Your task to perform on an android device: turn off sleep mode Image 0: 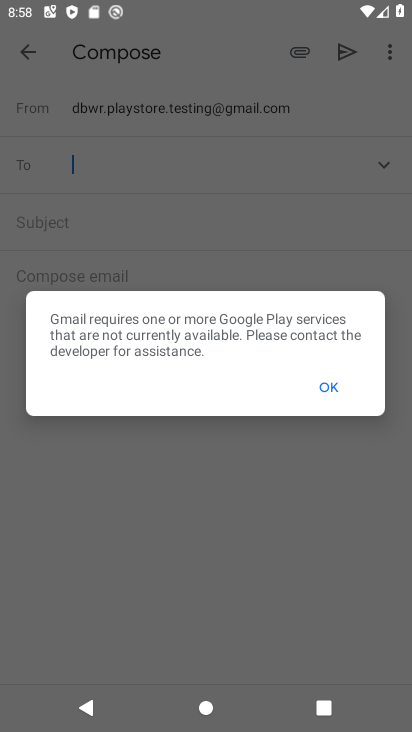
Step 0: press home button
Your task to perform on an android device: turn off sleep mode Image 1: 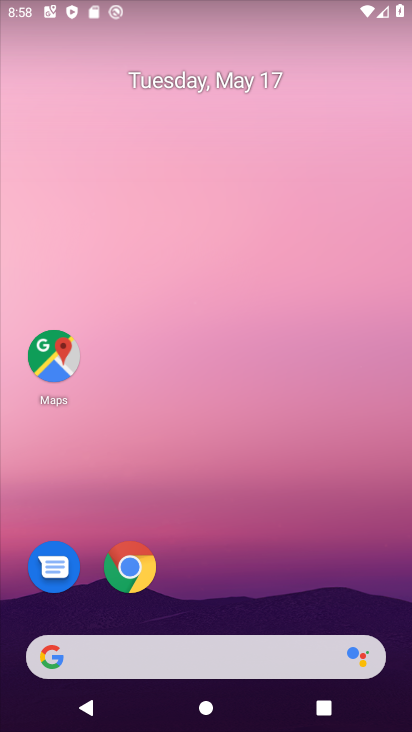
Step 1: drag from (251, 544) to (104, 31)
Your task to perform on an android device: turn off sleep mode Image 2: 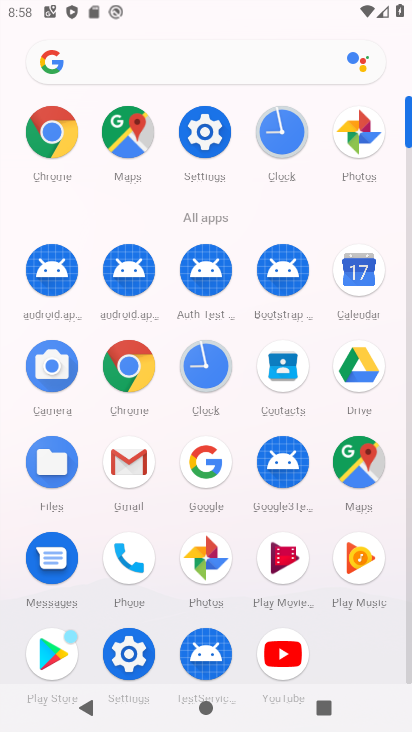
Step 2: click (208, 134)
Your task to perform on an android device: turn off sleep mode Image 3: 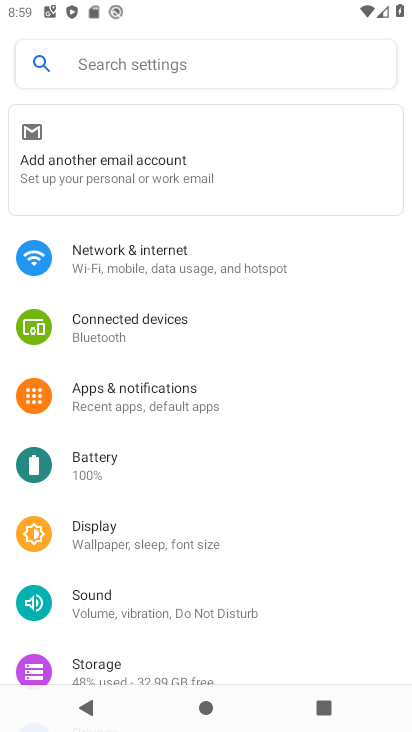
Step 3: click (103, 252)
Your task to perform on an android device: turn off sleep mode Image 4: 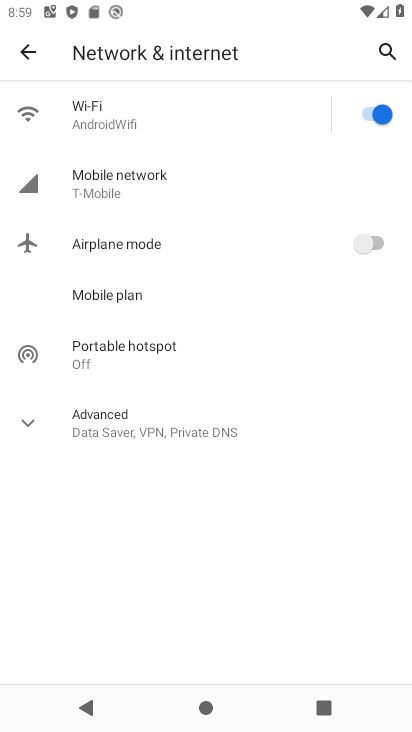
Step 4: click (22, 48)
Your task to perform on an android device: turn off sleep mode Image 5: 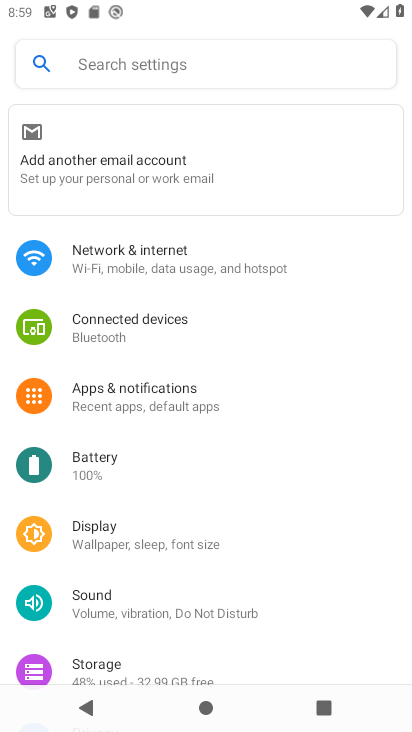
Step 5: click (96, 533)
Your task to perform on an android device: turn off sleep mode Image 6: 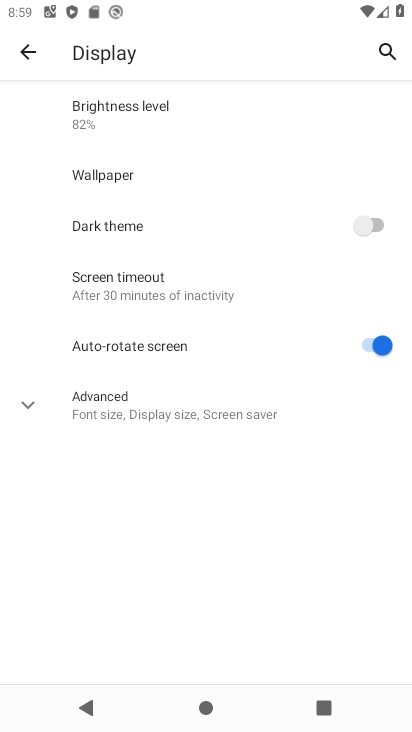
Step 6: click (27, 53)
Your task to perform on an android device: turn off sleep mode Image 7: 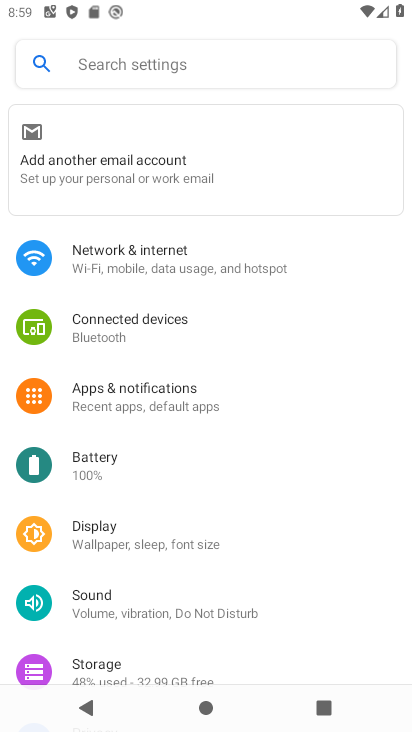
Step 7: task complete